Your task to perform on an android device: turn on airplane mode Image 0: 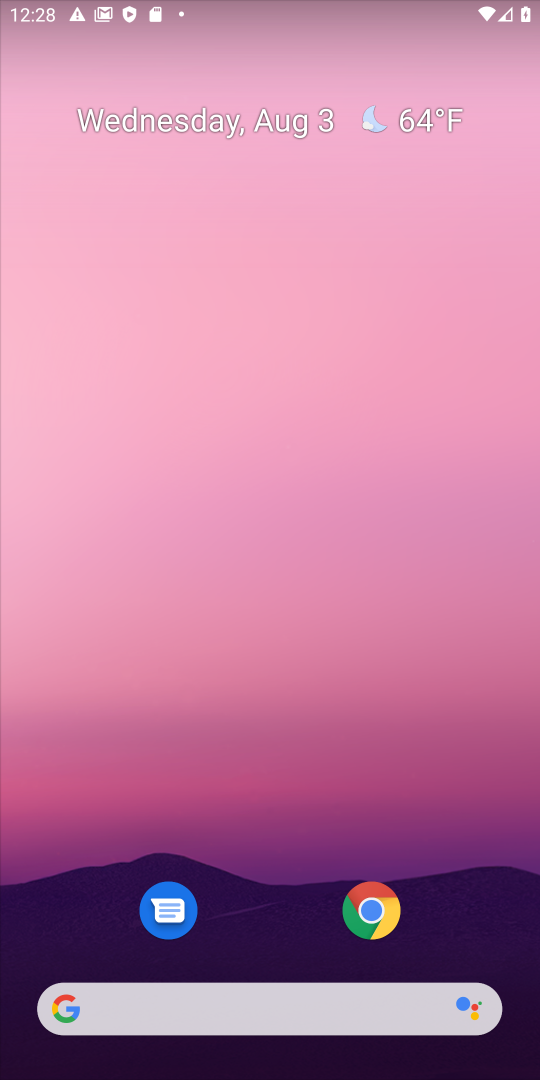
Step 0: drag from (438, 1008) to (465, 1067)
Your task to perform on an android device: turn on airplane mode Image 1: 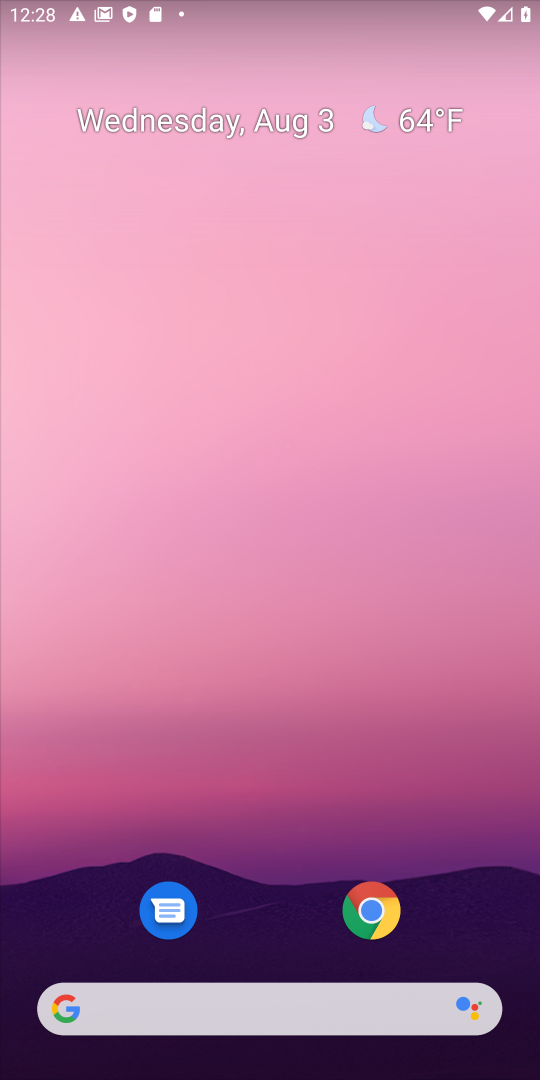
Step 1: drag from (323, 17) to (227, 978)
Your task to perform on an android device: turn on airplane mode Image 2: 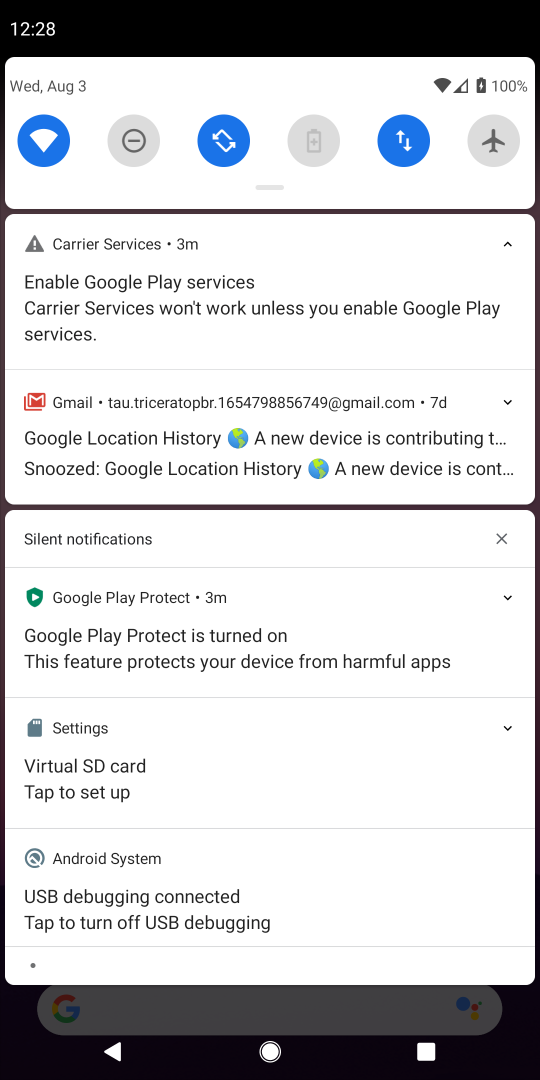
Step 2: drag from (266, 178) to (203, 797)
Your task to perform on an android device: turn on airplane mode Image 3: 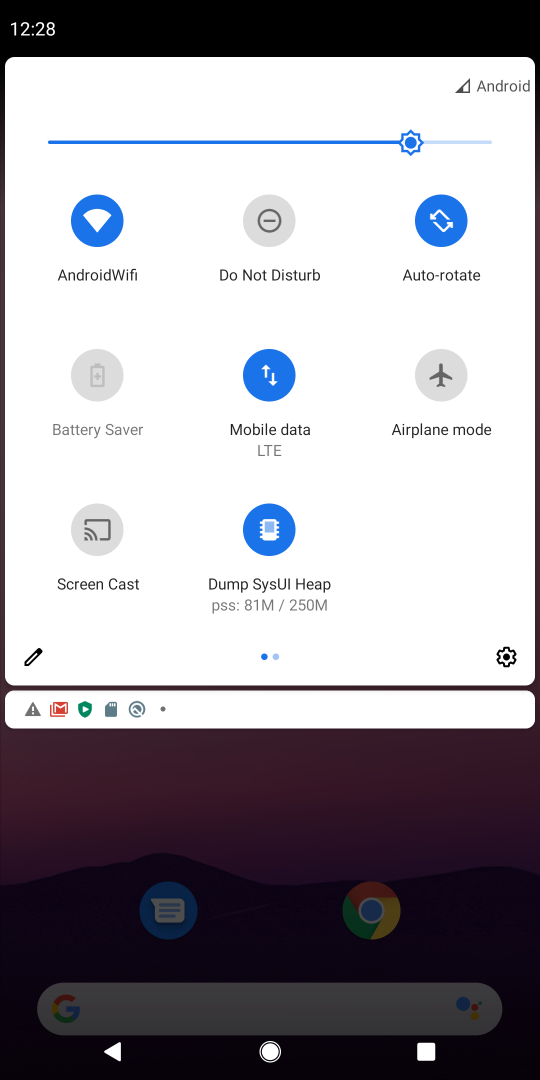
Step 3: click (449, 379)
Your task to perform on an android device: turn on airplane mode Image 4: 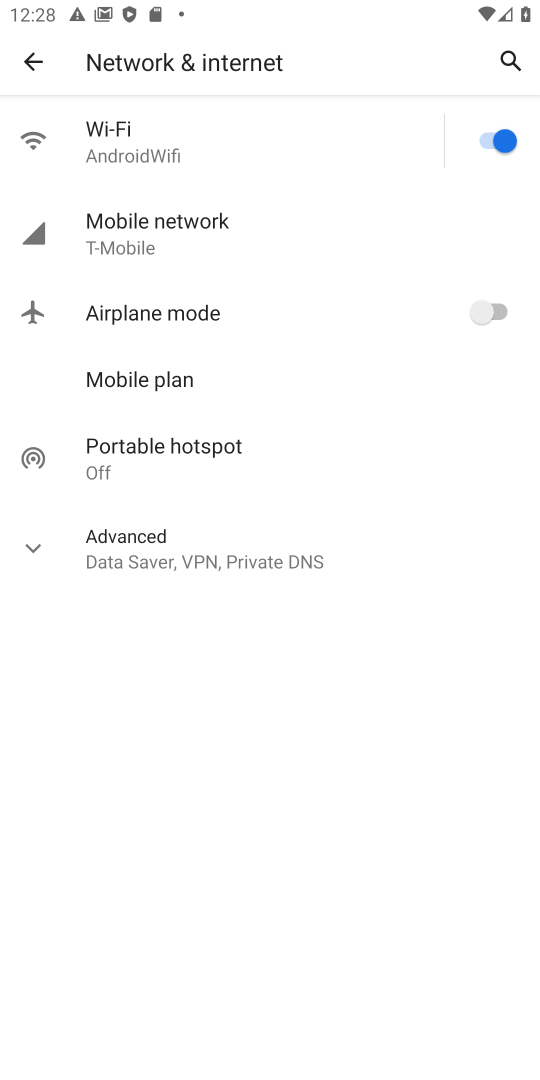
Step 4: task complete